Your task to perform on an android device: manage bookmarks in the chrome app Image 0: 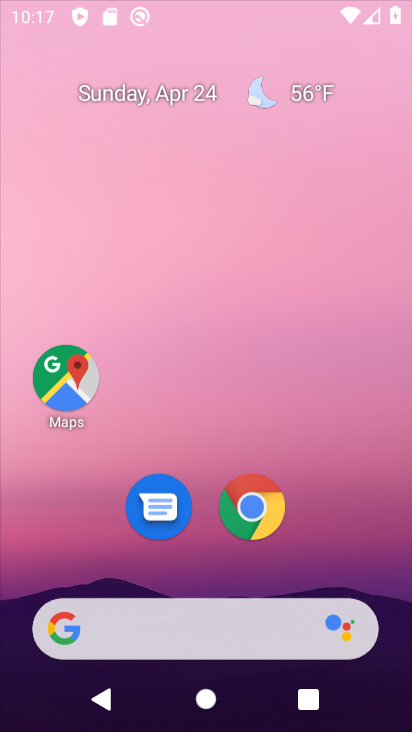
Step 0: drag from (398, 600) to (294, 6)
Your task to perform on an android device: manage bookmarks in the chrome app Image 1: 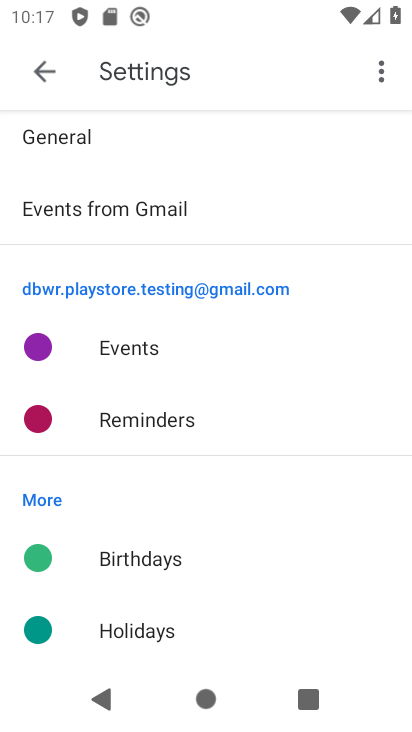
Step 1: press home button
Your task to perform on an android device: manage bookmarks in the chrome app Image 2: 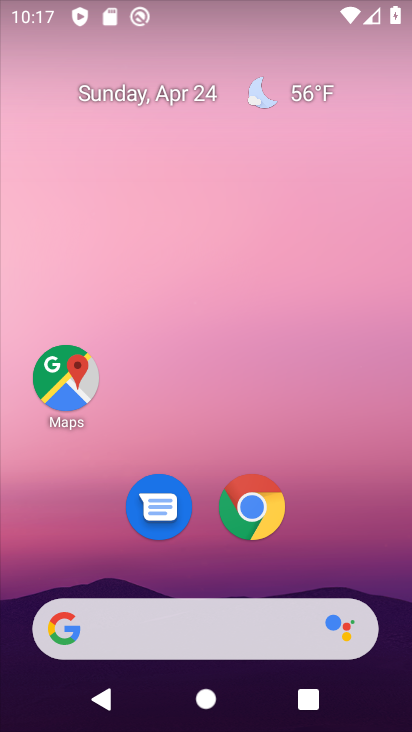
Step 2: click (250, 507)
Your task to perform on an android device: manage bookmarks in the chrome app Image 3: 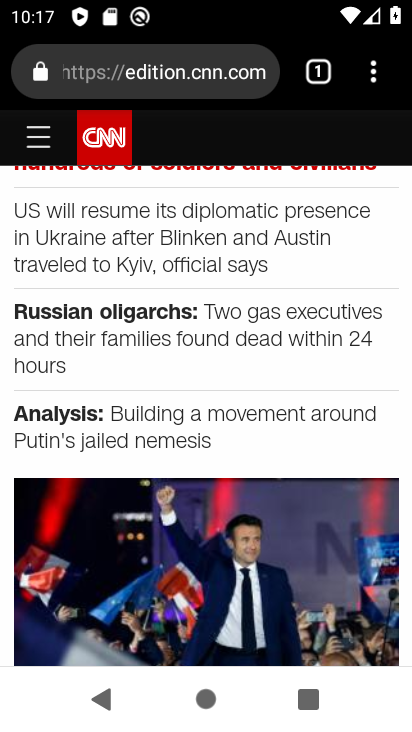
Step 3: click (371, 75)
Your task to perform on an android device: manage bookmarks in the chrome app Image 4: 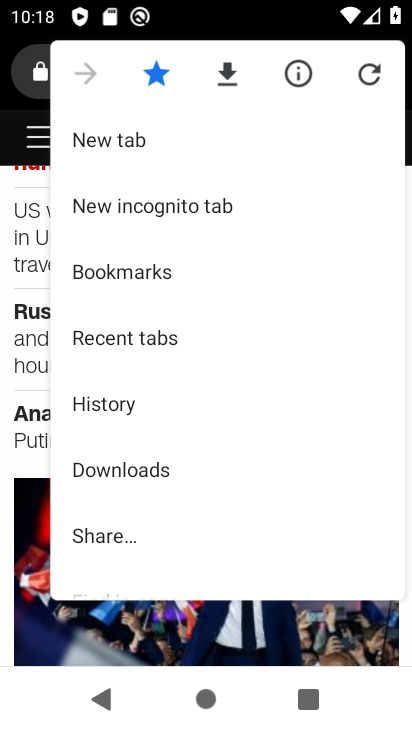
Step 4: click (114, 277)
Your task to perform on an android device: manage bookmarks in the chrome app Image 5: 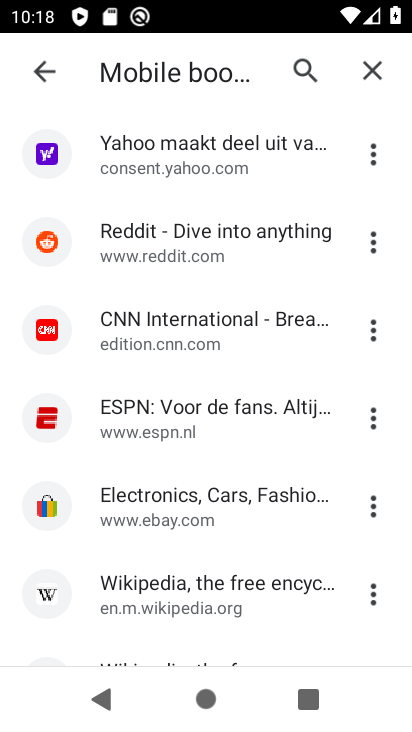
Step 5: drag from (233, 467) to (211, 179)
Your task to perform on an android device: manage bookmarks in the chrome app Image 6: 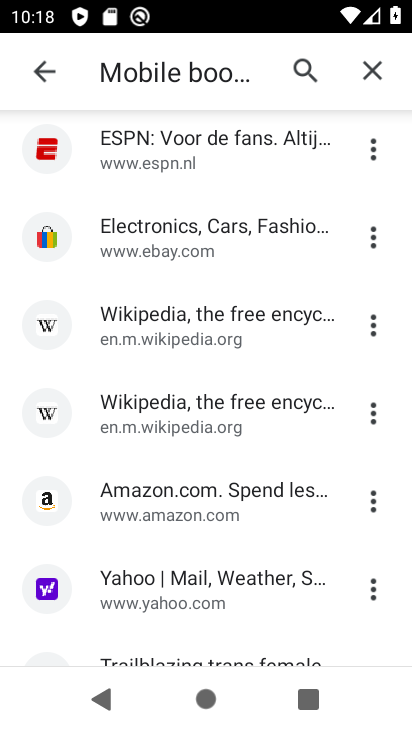
Step 6: click (174, 255)
Your task to perform on an android device: manage bookmarks in the chrome app Image 7: 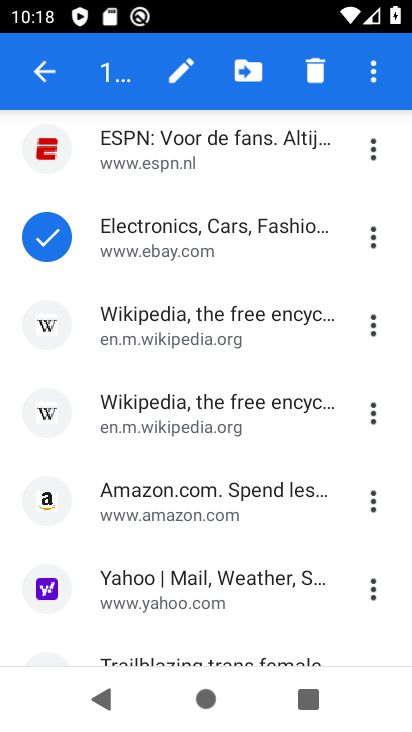
Step 7: click (243, 73)
Your task to perform on an android device: manage bookmarks in the chrome app Image 8: 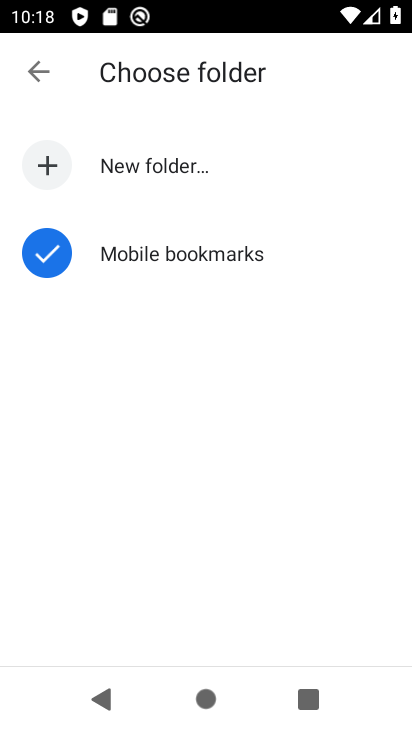
Step 8: click (48, 159)
Your task to perform on an android device: manage bookmarks in the chrome app Image 9: 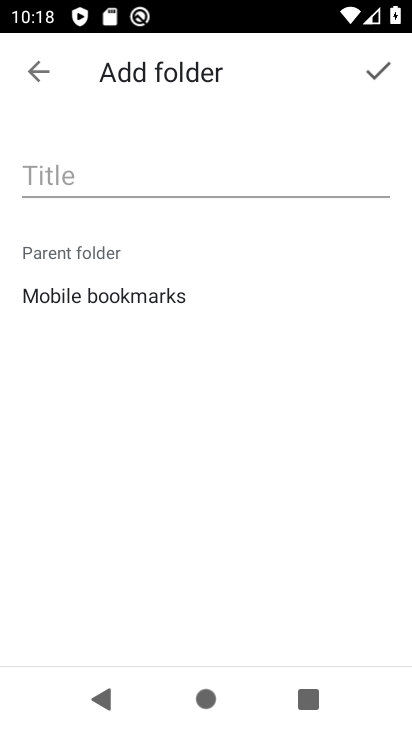
Step 9: click (108, 173)
Your task to perform on an android device: manage bookmarks in the chrome app Image 10: 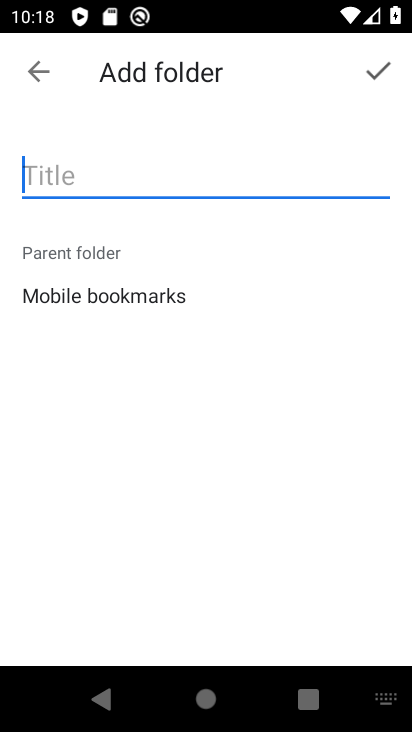
Step 10: type "fgdhdh"
Your task to perform on an android device: manage bookmarks in the chrome app Image 11: 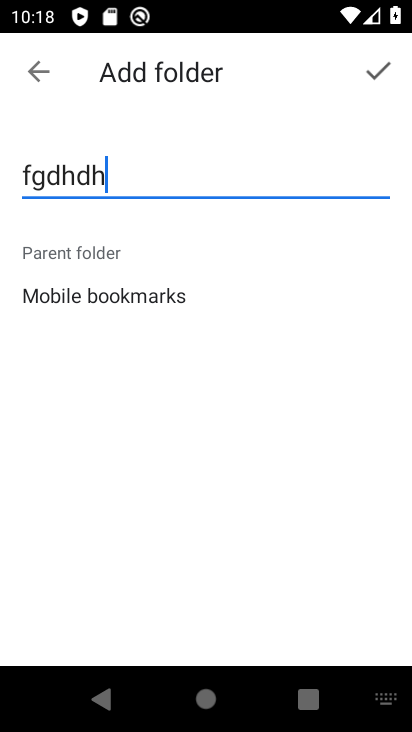
Step 11: click (375, 66)
Your task to perform on an android device: manage bookmarks in the chrome app Image 12: 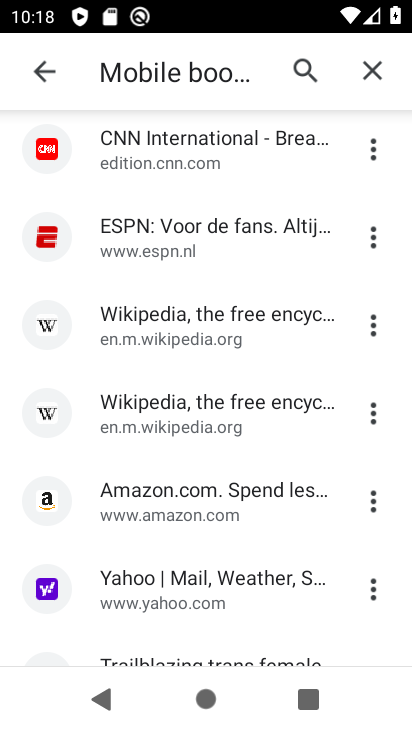
Step 12: task complete